Your task to perform on an android device: check battery use Image 0: 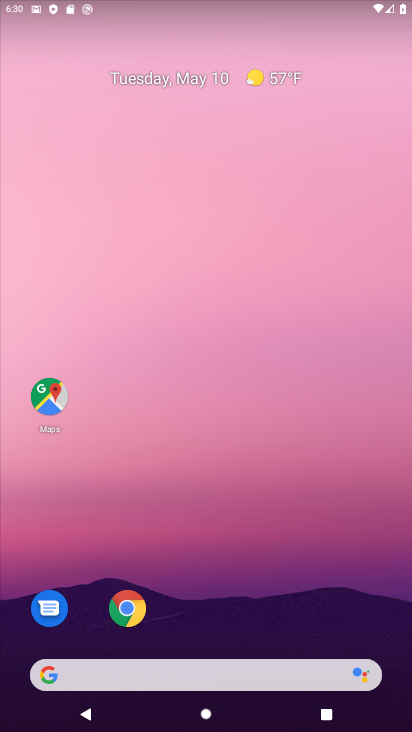
Step 0: drag from (300, 602) to (263, 248)
Your task to perform on an android device: check battery use Image 1: 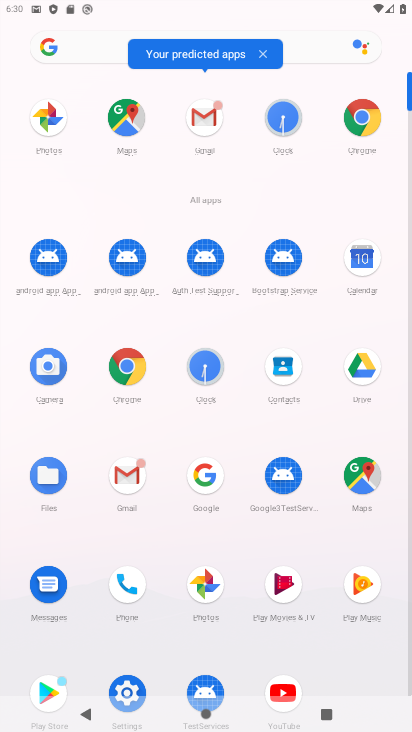
Step 1: click (124, 683)
Your task to perform on an android device: check battery use Image 2: 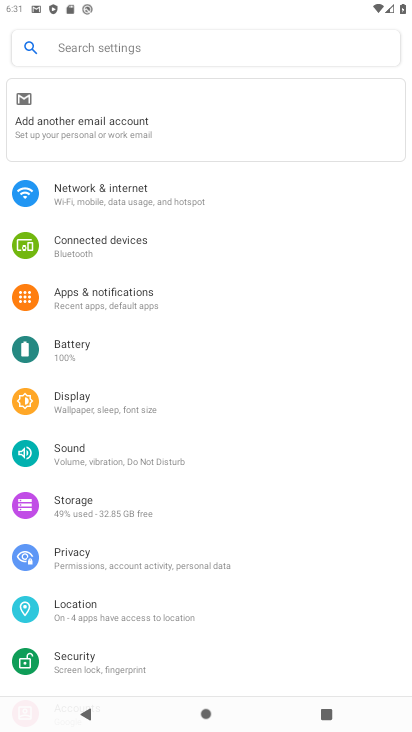
Step 2: click (117, 354)
Your task to perform on an android device: check battery use Image 3: 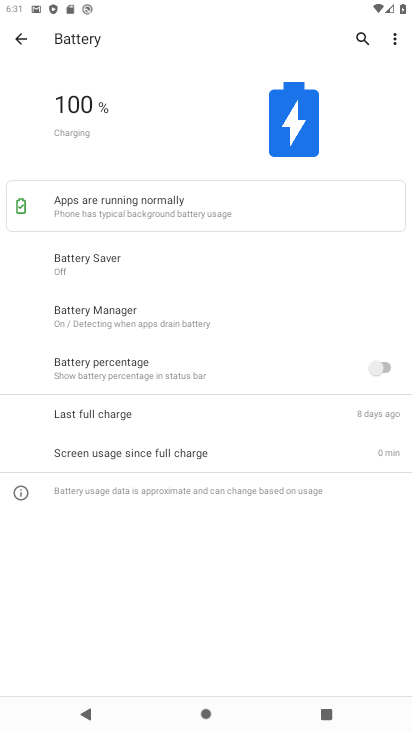
Step 3: task complete